Your task to perform on an android device: Open Reddit.com Image 0: 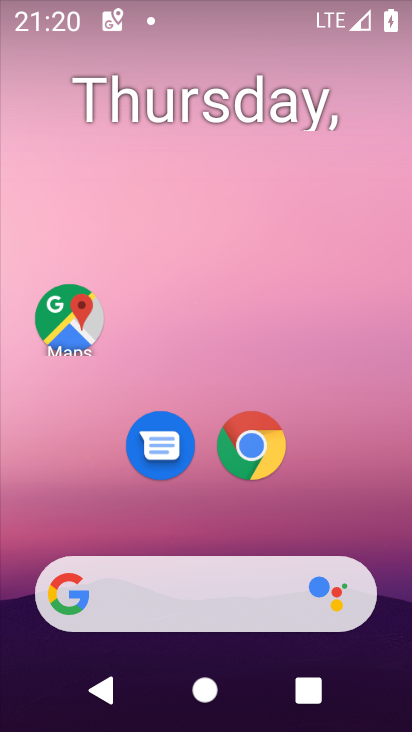
Step 0: drag from (197, 552) to (196, 0)
Your task to perform on an android device: Open Reddit.com Image 1: 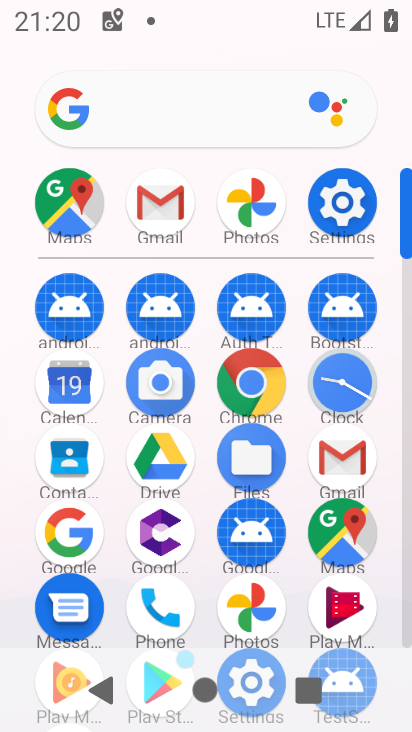
Step 1: click (249, 381)
Your task to perform on an android device: Open Reddit.com Image 2: 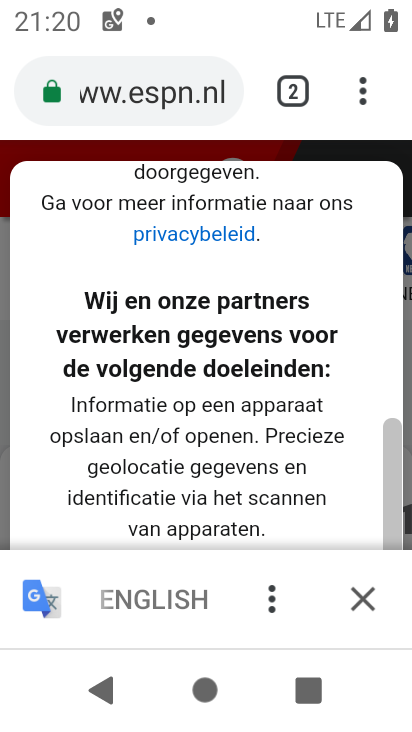
Step 2: click (298, 84)
Your task to perform on an android device: Open Reddit.com Image 3: 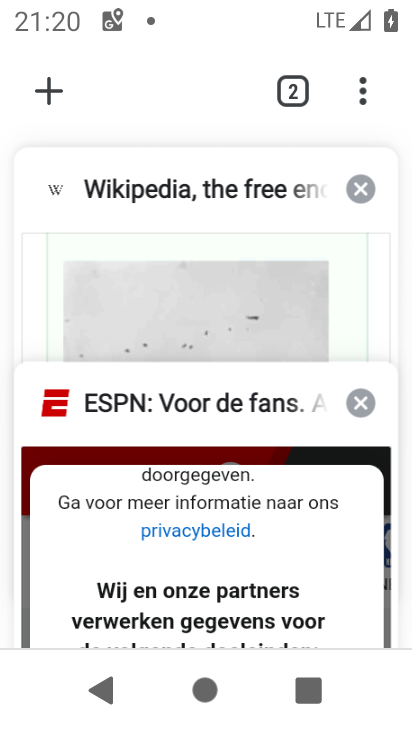
Step 3: click (166, 431)
Your task to perform on an android device: Open Reddit.com Image 4: 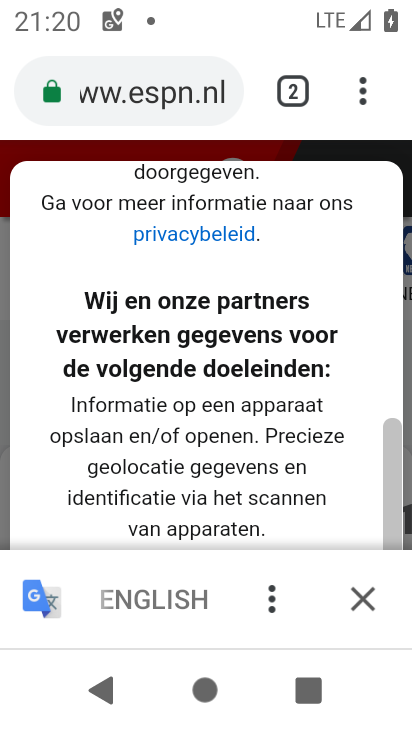
Step 4: click (129, 94)
Your task to perform on an android device: Open Reddit.com Image 5: 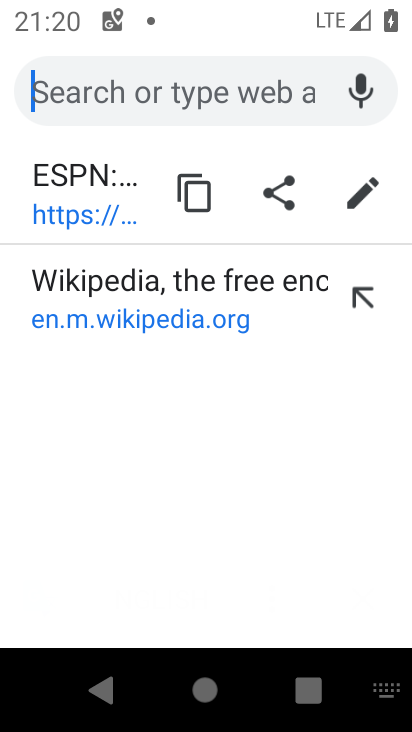
Step 5: type " Reddit.com"
Your task to perform on an android device: Open Reddit.com Image 6: 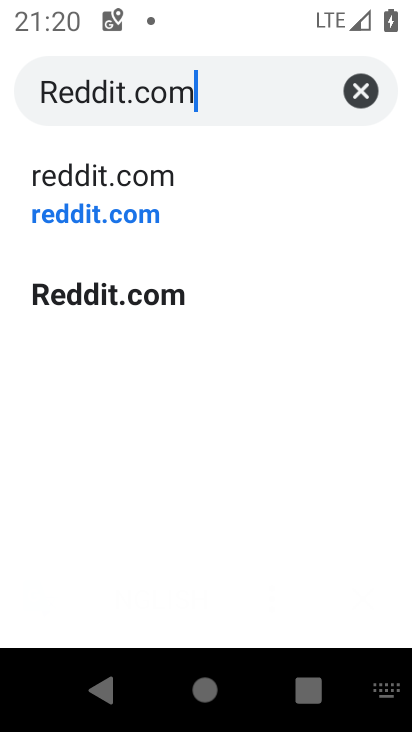
Step 6: type ""
Your task to perform on an android device: Open Reddit.com Image 7: 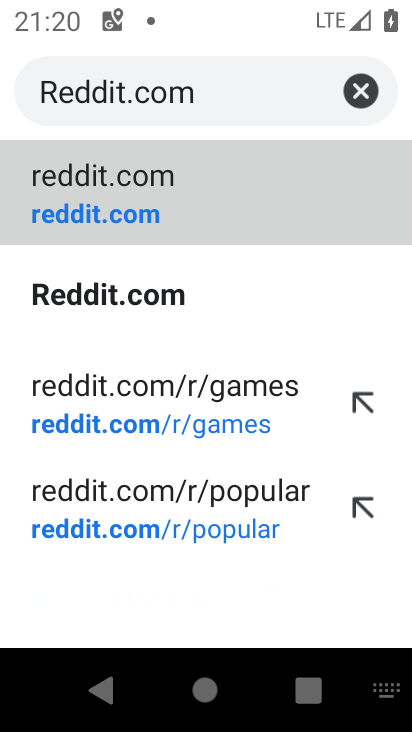
Step 7: click (70, 207)
Your task to perform on an android device: Open Reddit.com Image 8: 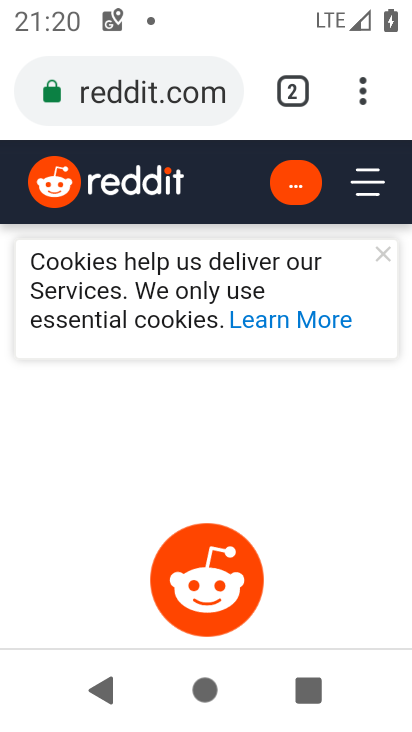
Step 8: task complete